Your task to perform on an android device: Open the calendar and show me this week's events? Image 0: 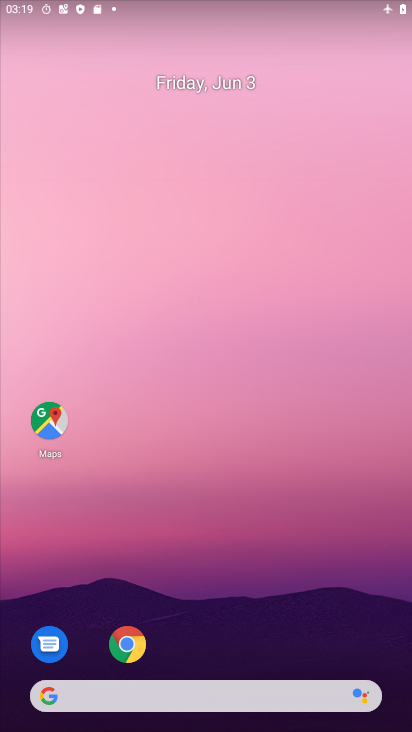
Step 0: drag from (194, 661) to (220, 227)
Your task to perform on an android device: Open the calendar and show me this week's events? Image 1: 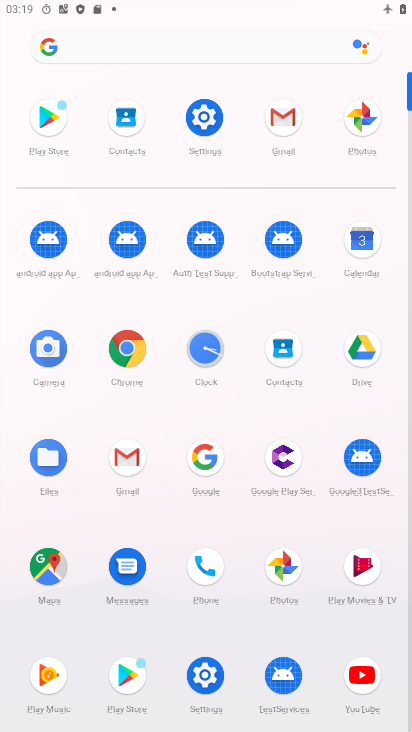
Step 1: click (354, 258)
Your task to perform on an android device: Open the calendar and show me this week's events? Image 2: 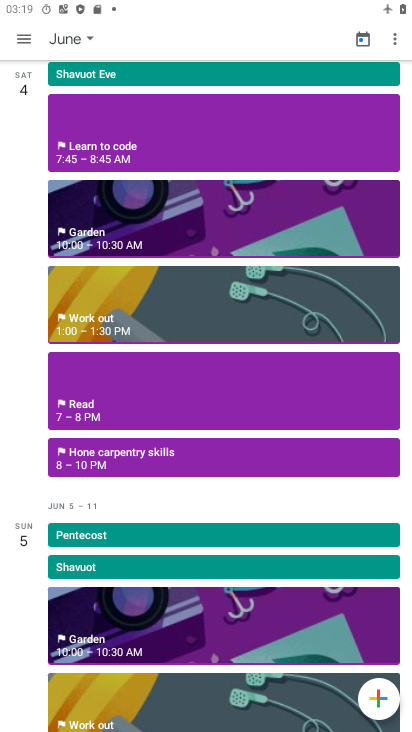
Step 2: click (78, 38)
Your task to perform on an android device: Open the calendar and show me this week's events? Image 3: 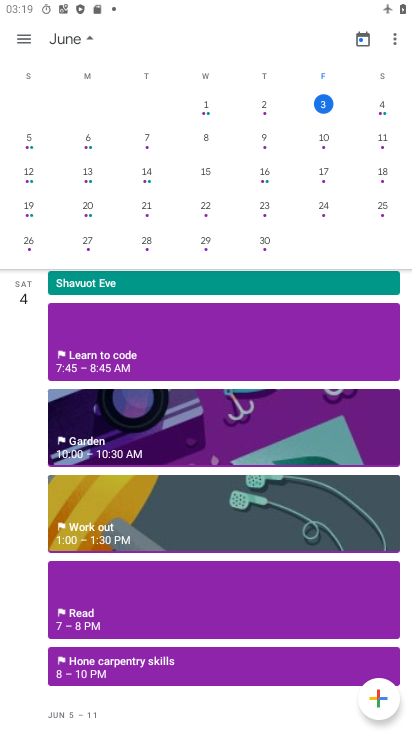
Step 3: task complete